Your task to perform on an android device: What is the speed of a train? Image 0: 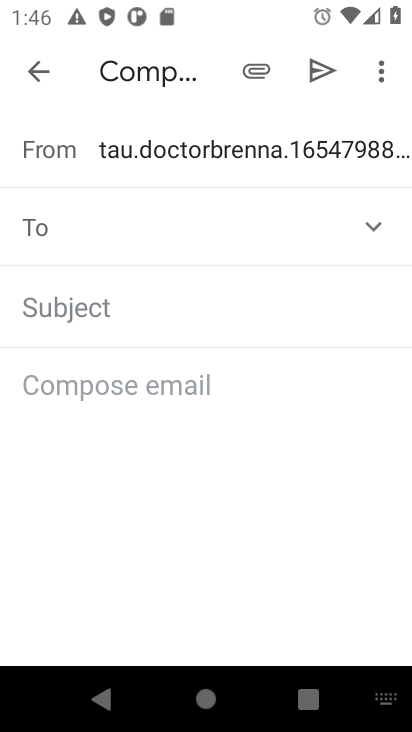
Step 0: press home button
Your task to perform on an android device: What is the speed of a train? Image 1: 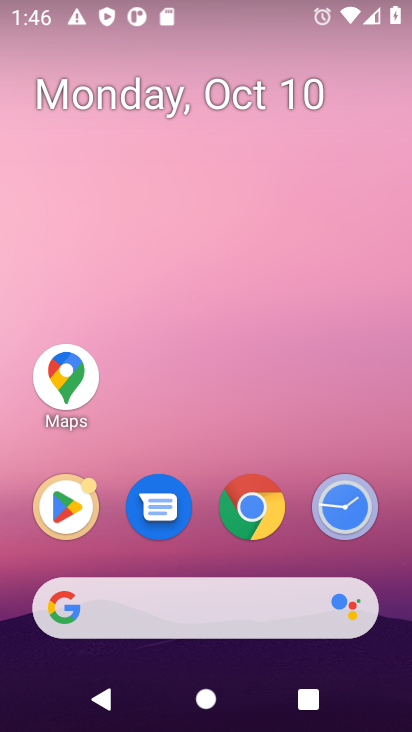
Step 1: click (262, 606)
Your task to perform on an android device: What is the speed of a train? Image 2: 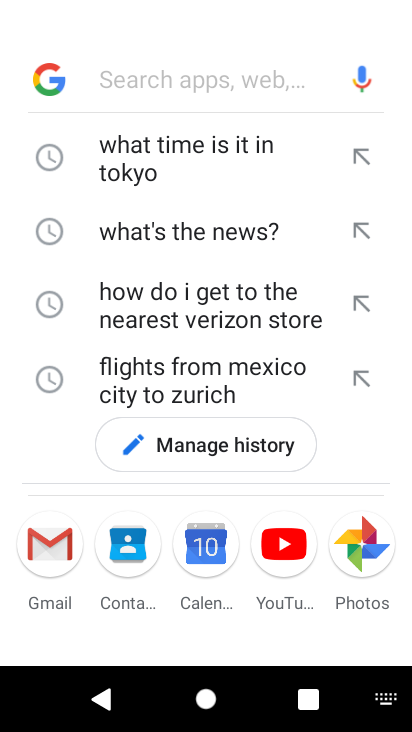
Step 2: type "What is the speed of a train"
Your task to perform on an android device: What is the speed of a train? Image 3: 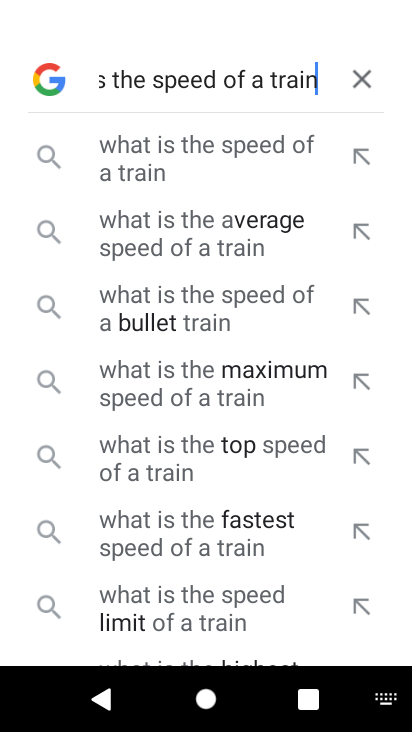
Step 3: press enter
Your task to perform on an android device: What is the speed of a train? Image 4: 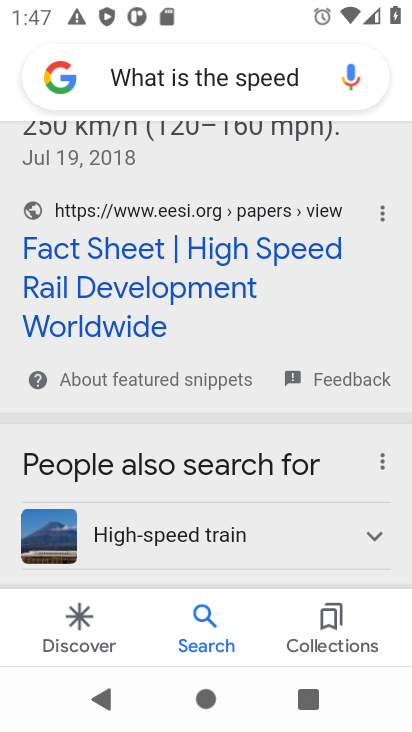
Step 4: task complete